Your task to perform on an android device: move a message to another label in the gmail app Image 0: 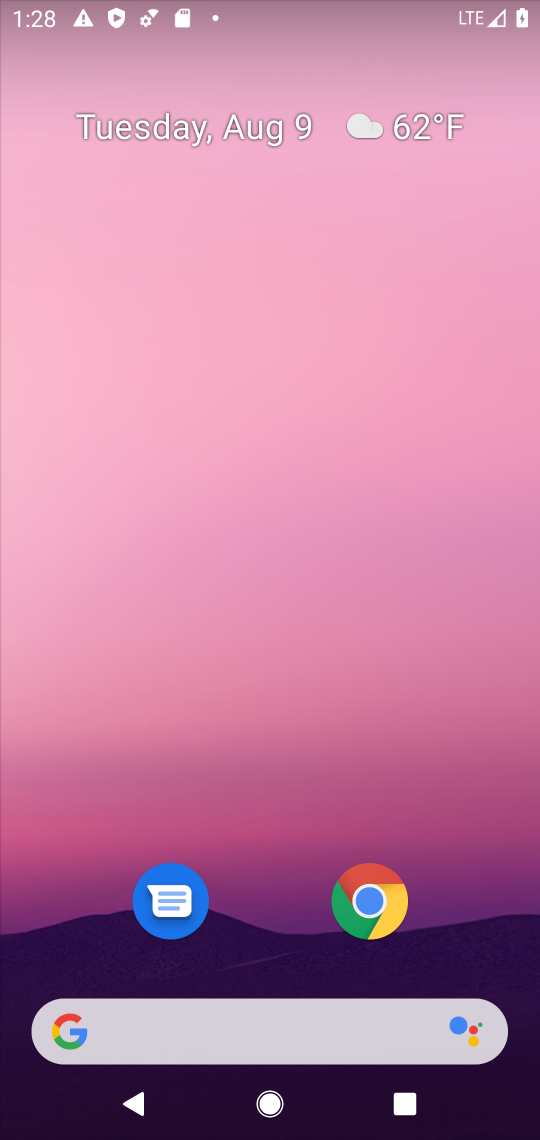
Step 0: drag from (531, 1039) to (433, 123)
Your task to perform on an android device: move a message to another label in the gmail app Image 1: 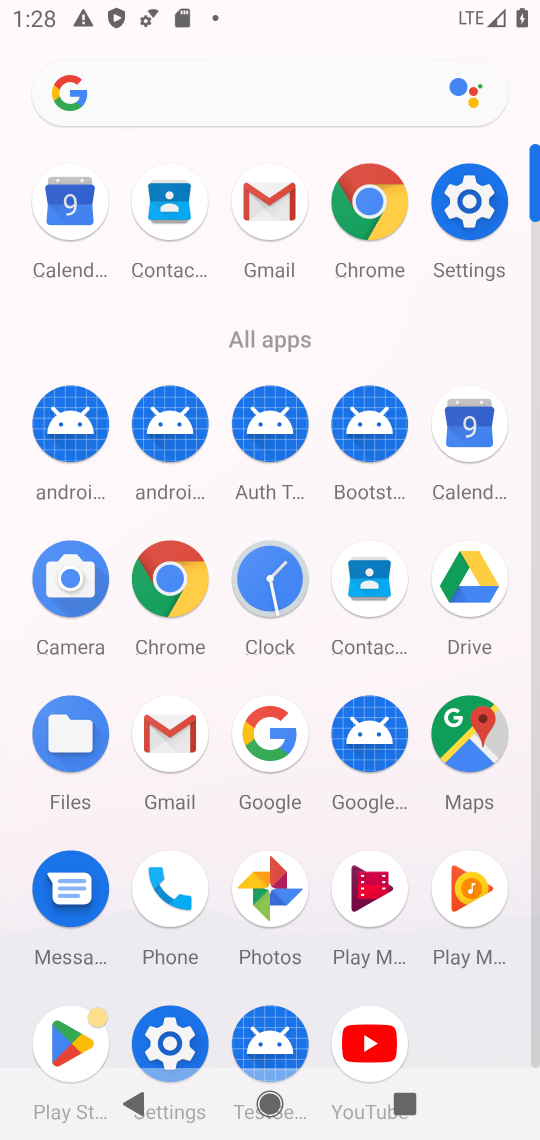
Step 1: click (169, 740)
Your task to perform on an android device: move a message to another label in the gmail app Image 2: 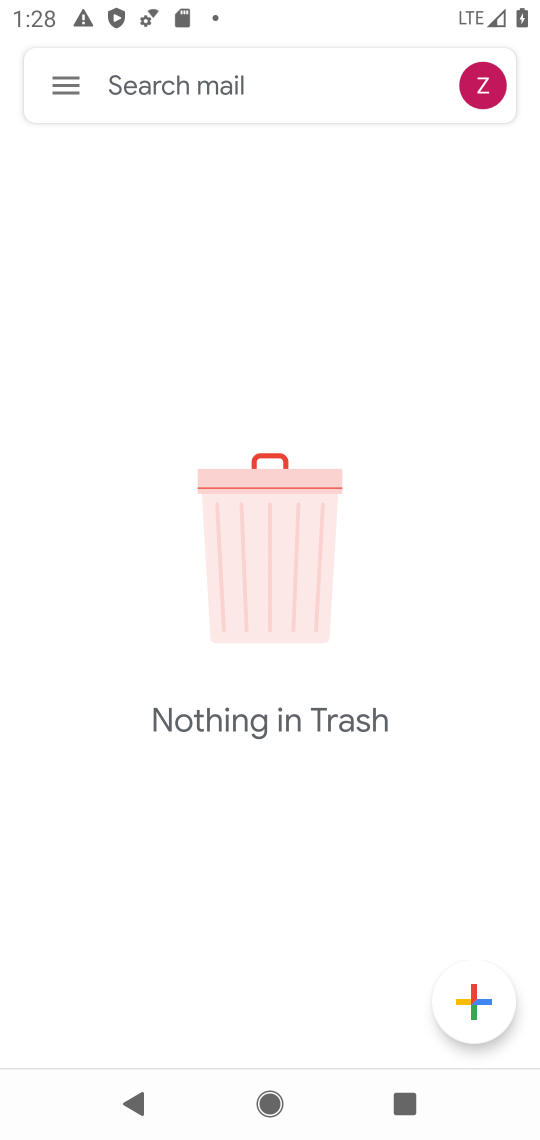
Step 2: click (71, 87)
Your task to perform on an android device: move a message to another label in the gmail app Image 3: 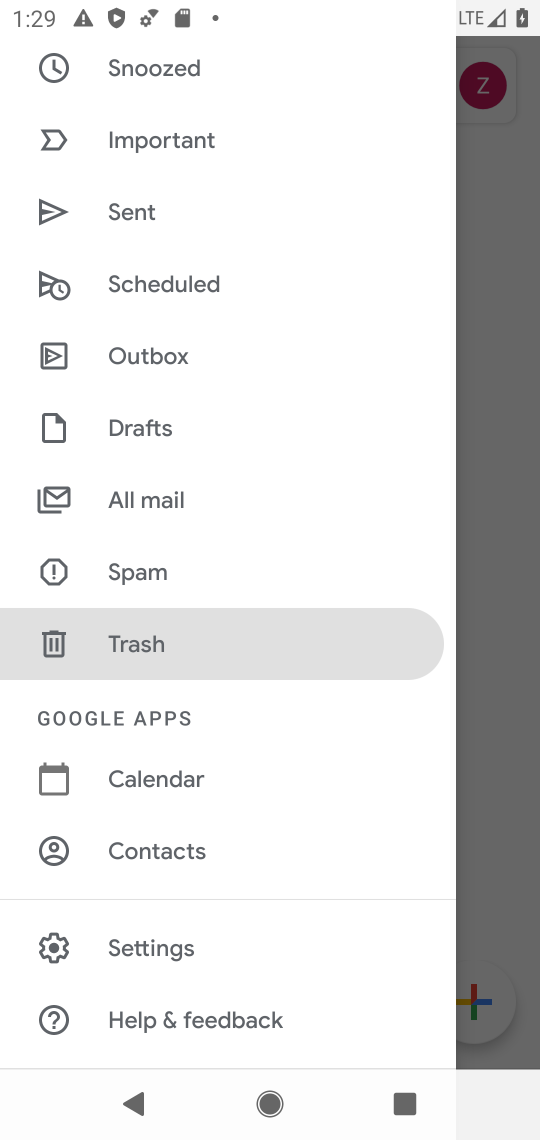
Step 3: click (156, 479)
Your task to perform on an android device: move a message to another label in the gmail app Image 4: 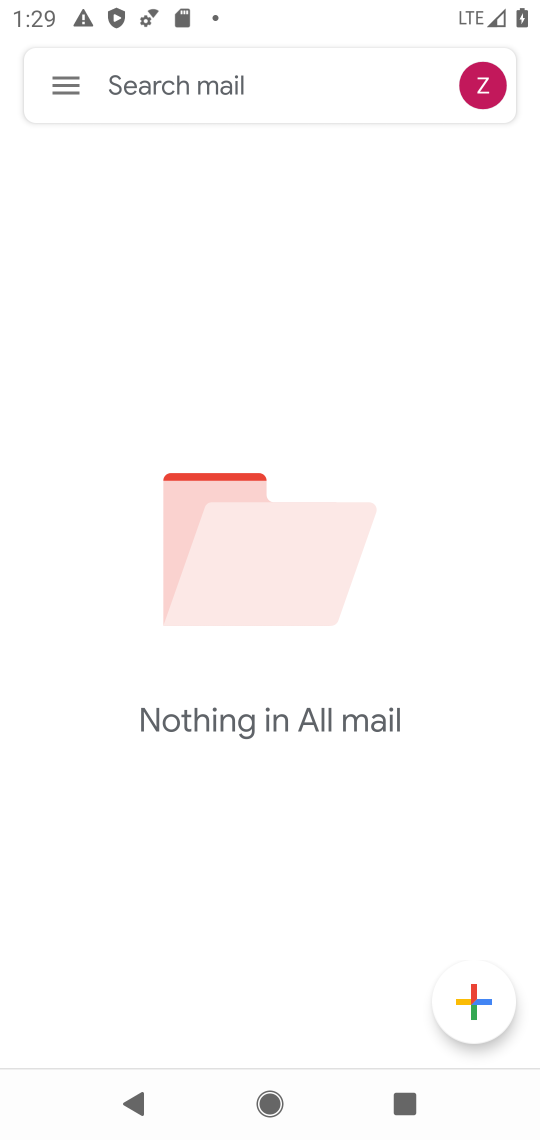
Step 4: task complete